Your task to perform on an android device: Open calendar and show me the fourth week of next month Image 0: 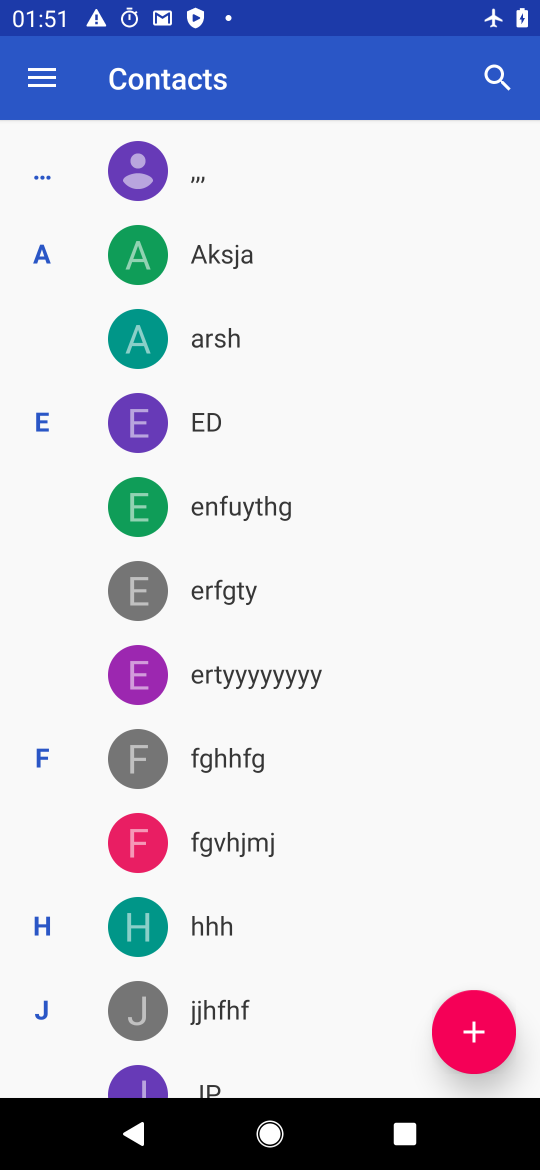
Step 0: click (281, 997)
Your task to perform on an android device: Open calendar and show me the fourth week of next month Image 1: 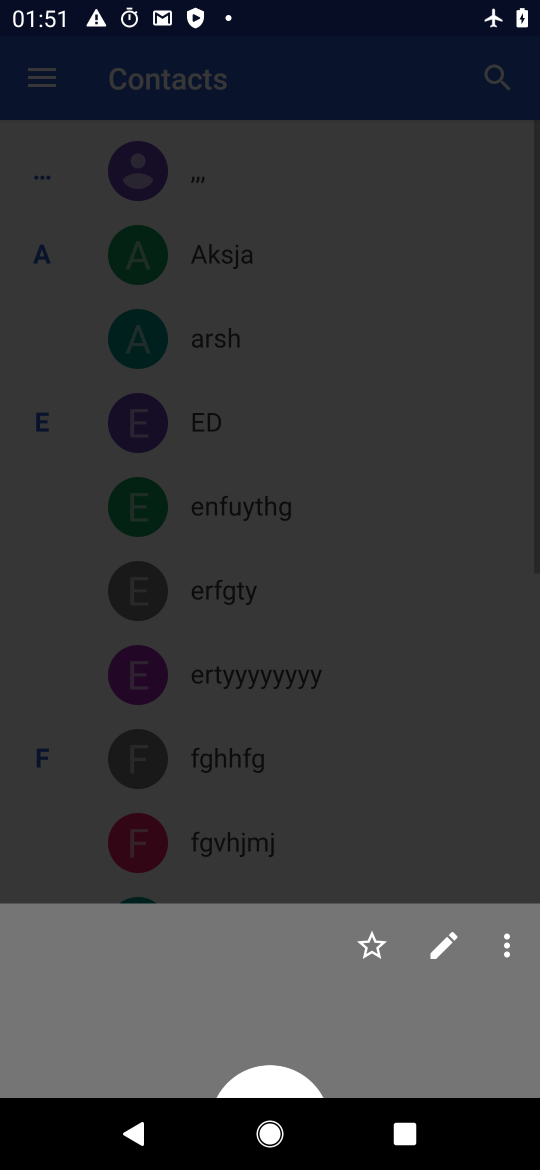
Step 1: press home button
Your task to perform on an android device: Open calendar and show me the fourth week of next month Image 2: 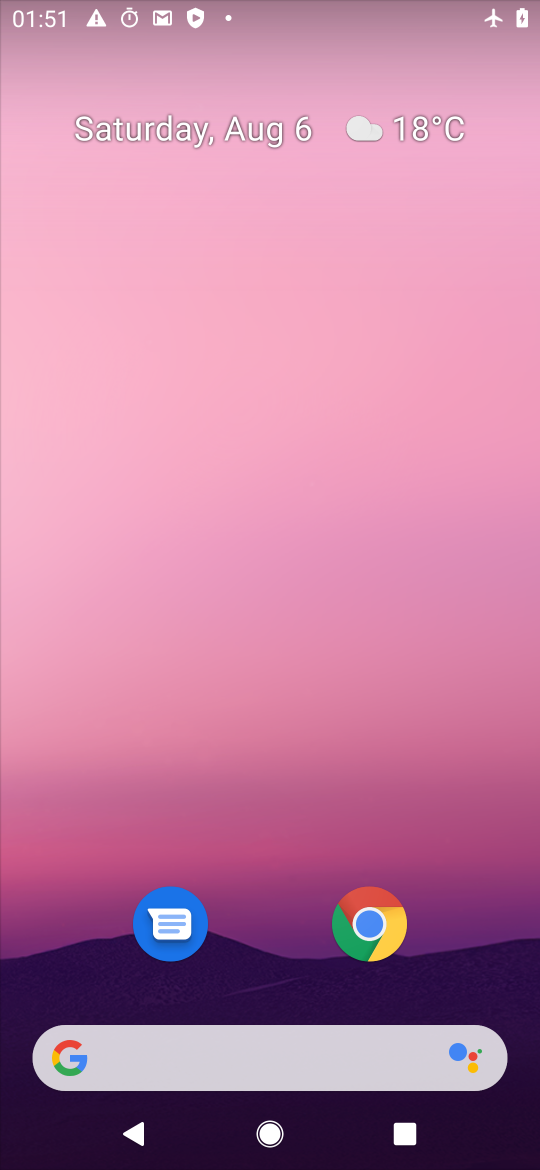
Step 2: drag from (277, 1047) to (152, 39)
Your task to perform on an android device: Open calendar and show me the fourth week of next month Image 3: 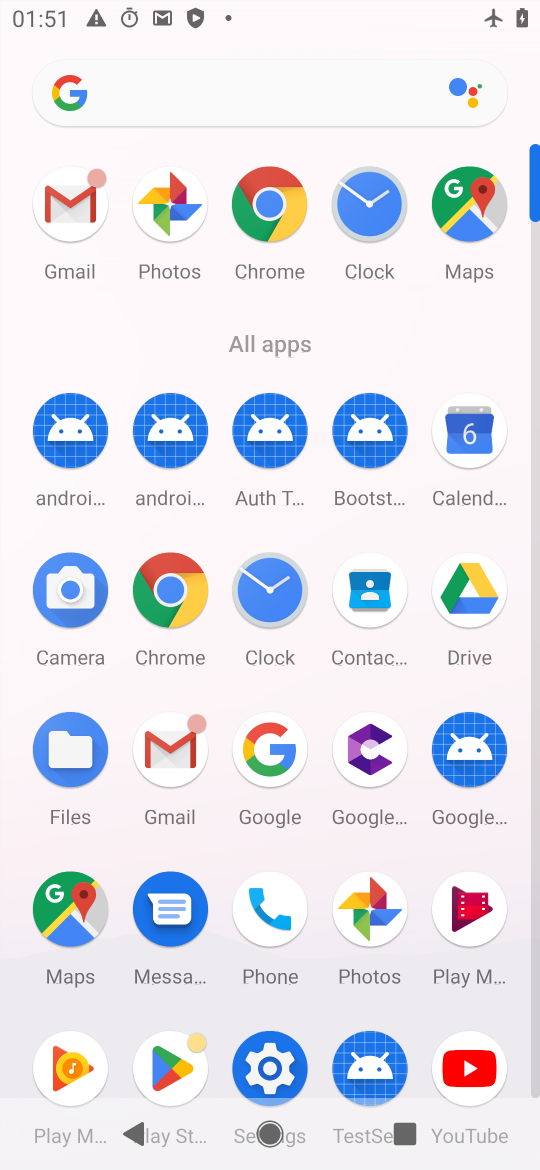
Step 3: click (467, 458)
Your task to perform on an android device: Open calendar and show me the fourth week of next month Image 4: 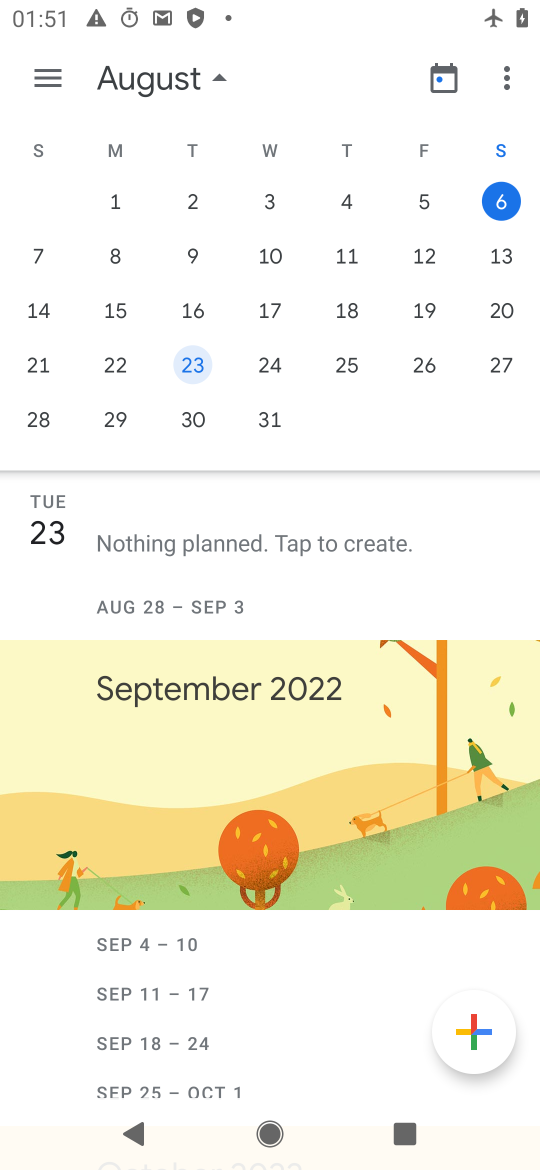
Step 4: drag from (469, 310) to (40, 278)
Your task to perform on an android device: Open calendar and show me the fourth week of next month Image 5: 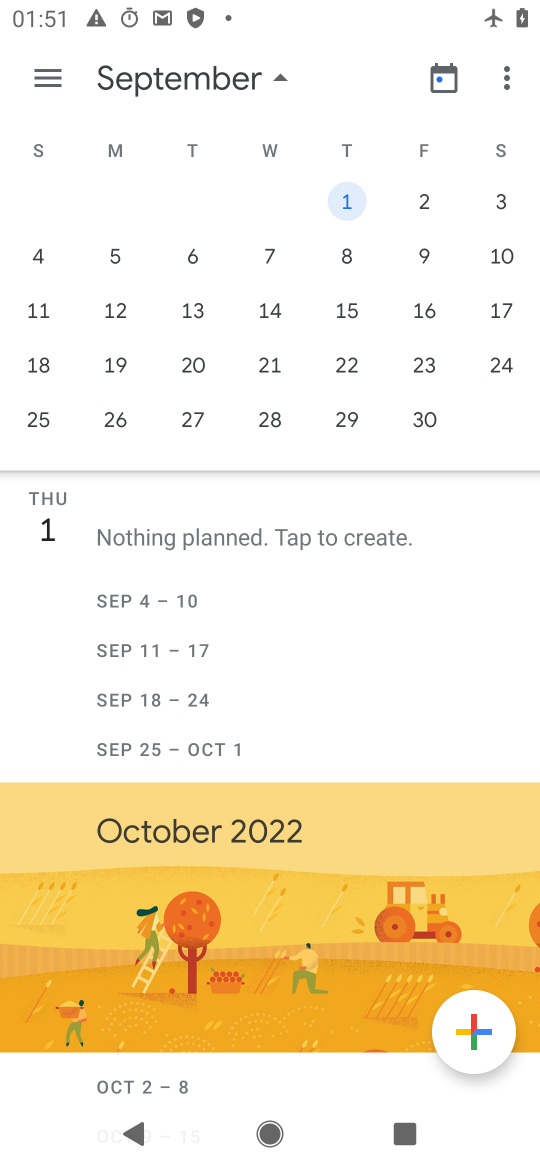
Step 5: click (263, 366)
Your task to perform on an android device: Open calendar and show me the fourth week of next month Image 6: 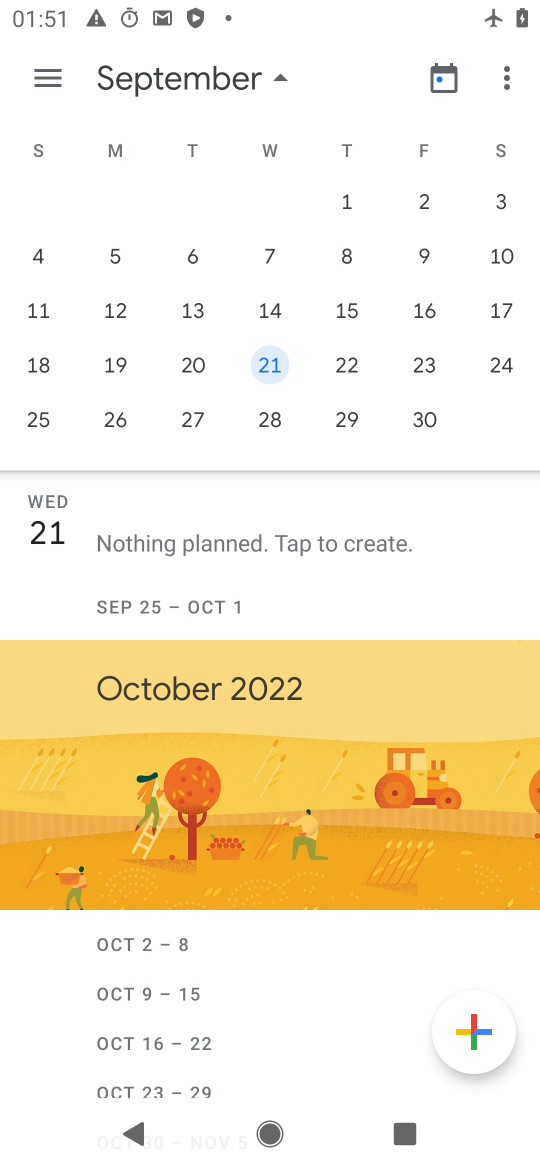
Step 6: task complete